Your task to perform on an android device: Open sound settings Image 0: 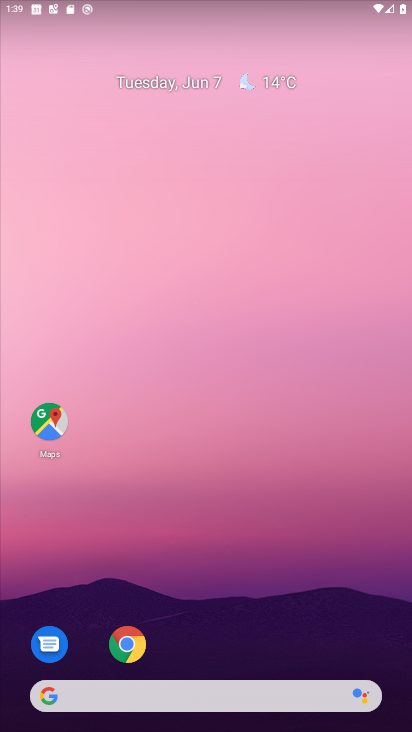
Step 0: drag from (285, 642) to (293, 0)
Your task to perform on an android device: Open sound settings Image 1: 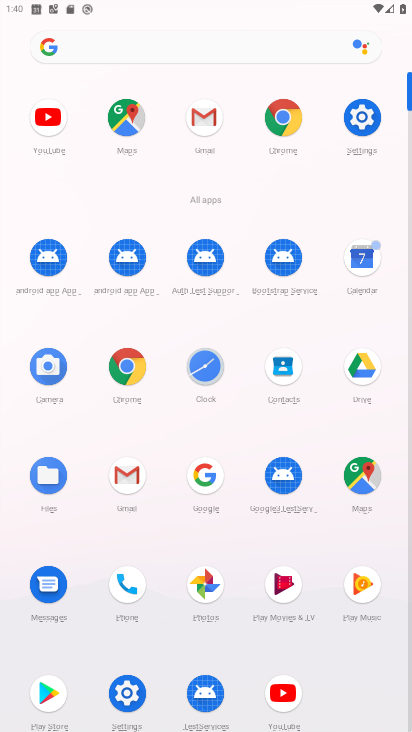
Step 1: click (128, 690)
Your task to perform on an android device: Open sound settings Image 2: 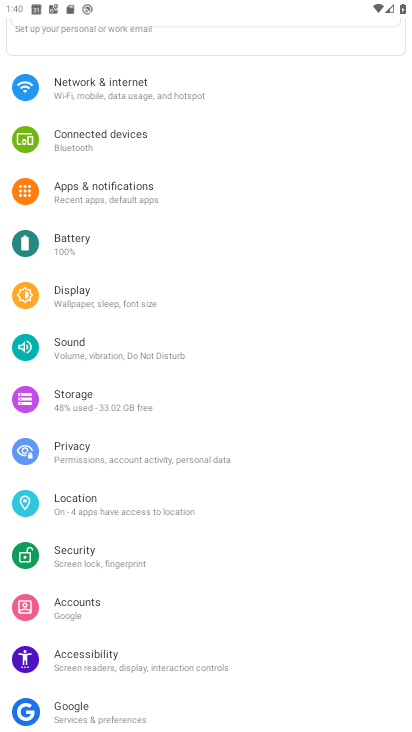
Step 2: click (90, 337)
Your task to perform on an android device: Open sound settings Image 3: 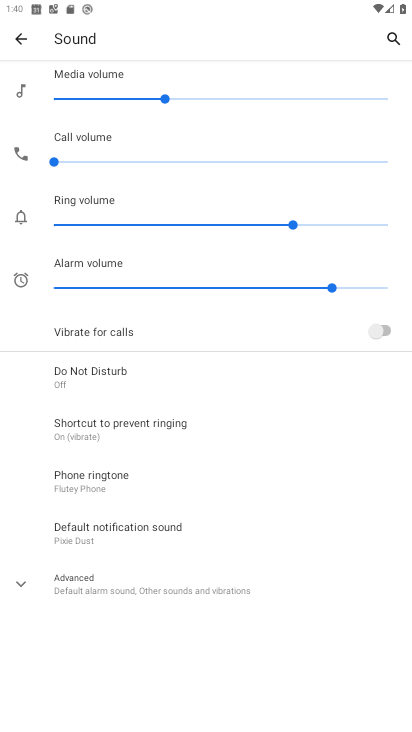
Step 3: task complete